Your task to perform on an android device: Search for custom wallets on Etsy. Image 0: 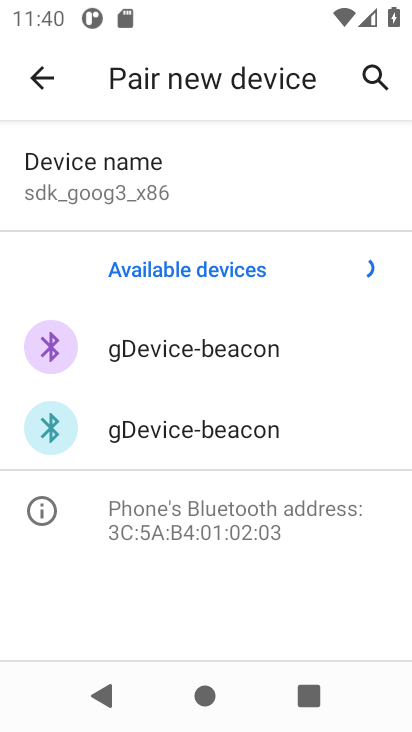
Step 0: click (212, 334)
Your task to perform on an android device: Search for custom wallets on Etsy. Image 1: 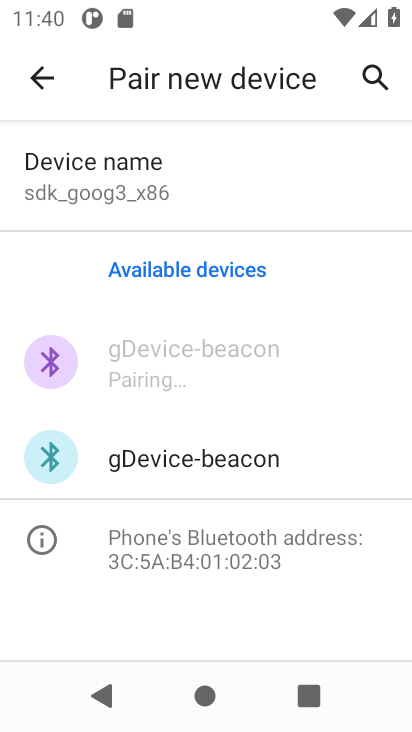
Step 1: task complete